Your task to perform on an android device: Open settings Image 0: 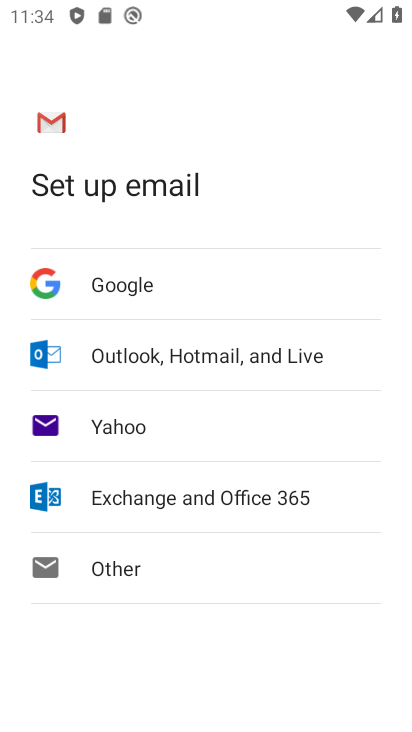
Step 0: press home button
Your task to perform on an android device: Open settings Image 1: 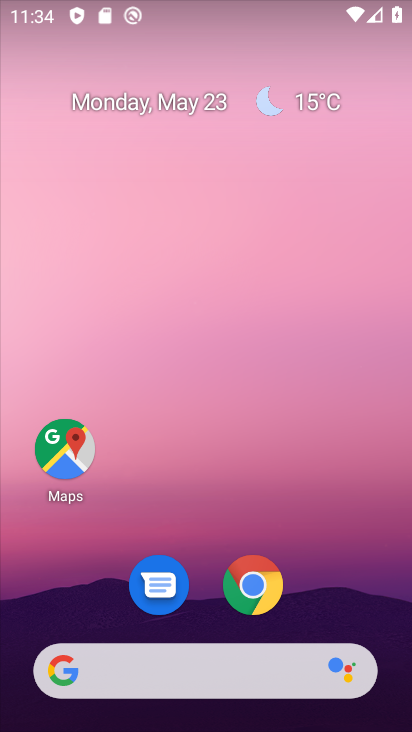
Step 1: drag from (201, 506) to (222, 46)
Your task to perform on an android device: Open settings Image 2: 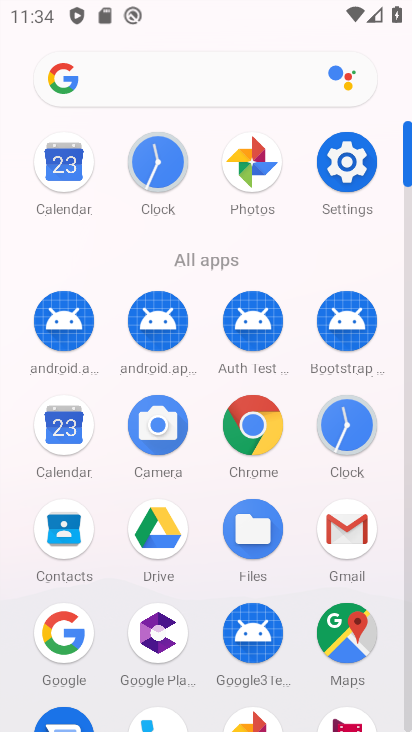
Step 2: click (347, 169)
Your task to perform on an android device: Open settings Image 3: 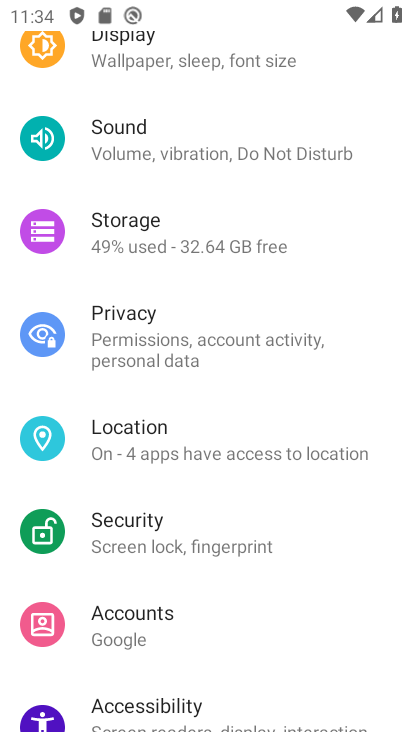
Step 3: task complete